Your task to perform on an android device: check android version Image 0: 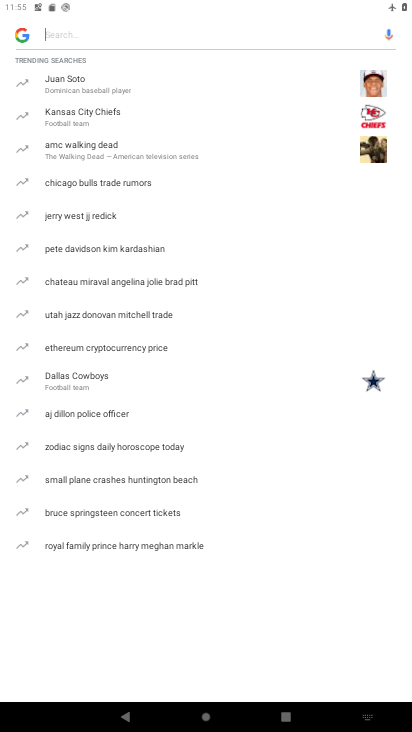
Step 0: press home button
Your task to perform on an android device: check android version Image 1: 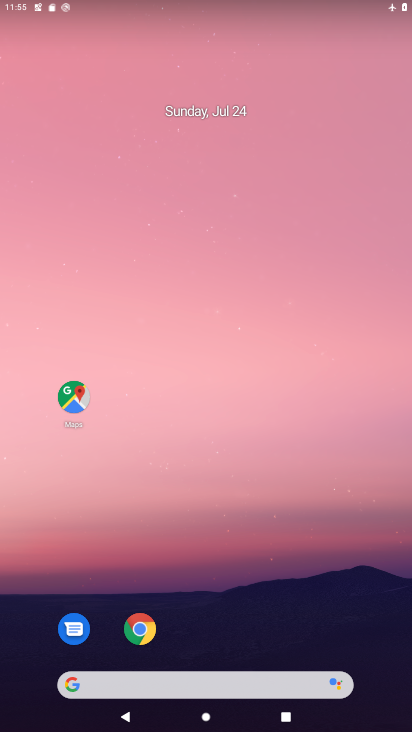
Step 1: drag from (188, 593) to (167, 8)
Your task to perform on an android device: check android version Image 2: 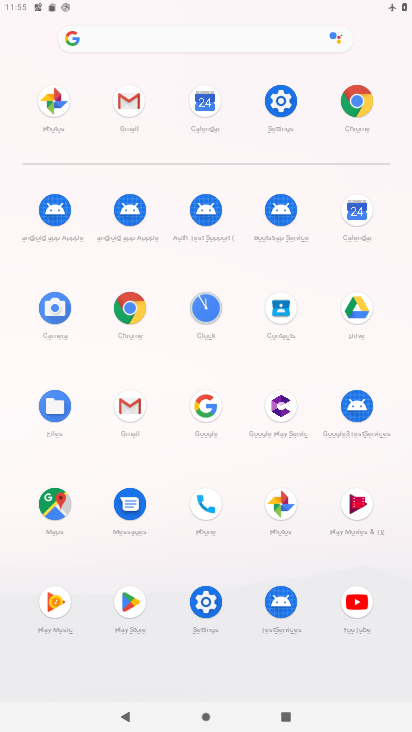
Step 2: click (294, 112)
Your task to perform on an android device: check android version Image 3: 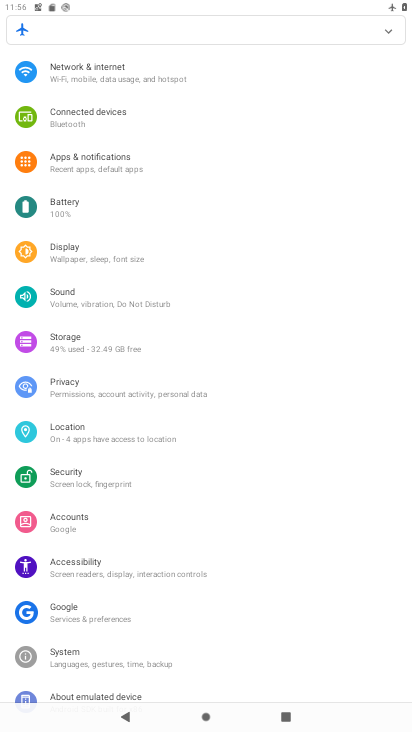
Step 3: drag from (112, 622) to (120, 402)
Your task to perform on an android device: check android version Image 4: 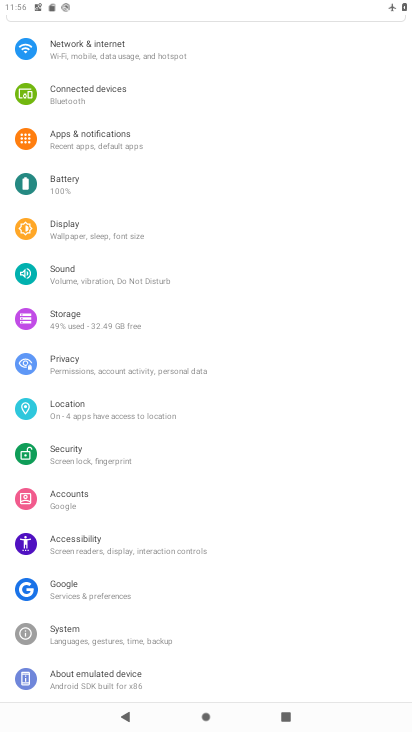
Step 4: click (81, 676)
Your task to perform on an android device: check android version Image 5: 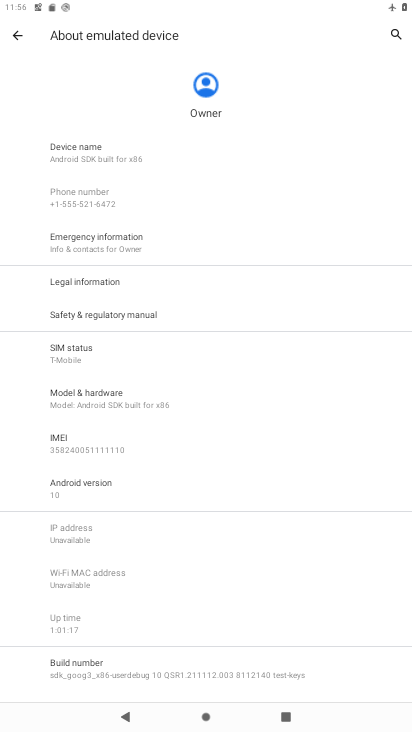
Step 5: click (101, 491)
Your task to perform on an android device: check android version Image 6: 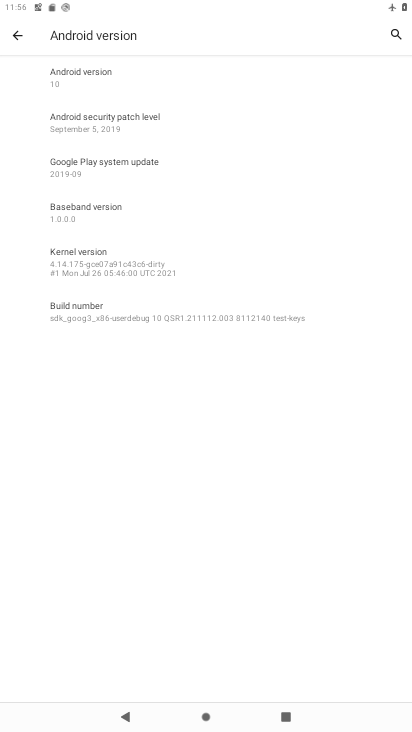
Step 6: task complete